Your task to perform on an android device: turn off location Image 0: 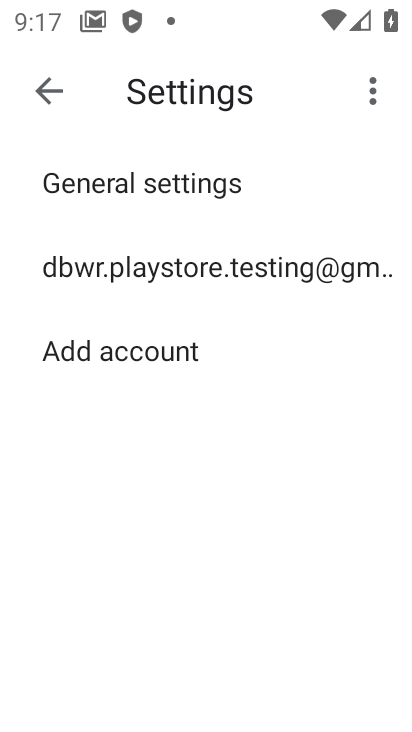
Step 0: press home button
Your task to perform on an android device: turn off location Image 1: 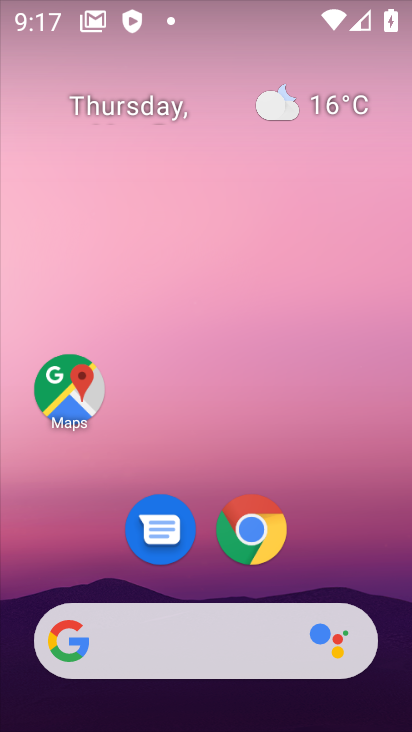
Step 1: drag from (401, 332) to (409, 110)
Your task to perform on an android device: turn off location Image 2: 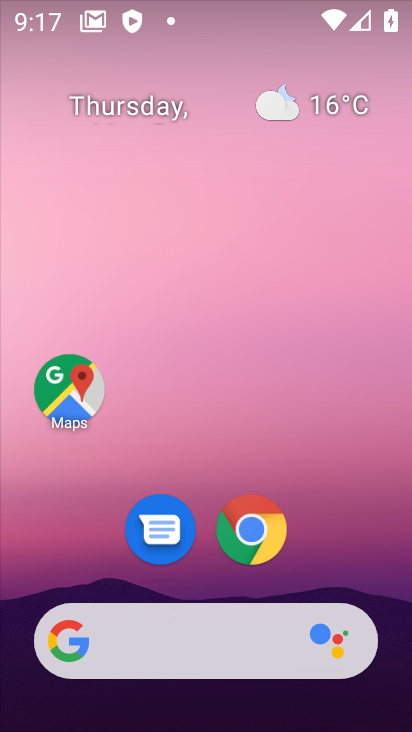
Step 2: drag from (386, 619) to (345, 177)
Your task to perform on an android device: turn off location Image 3: 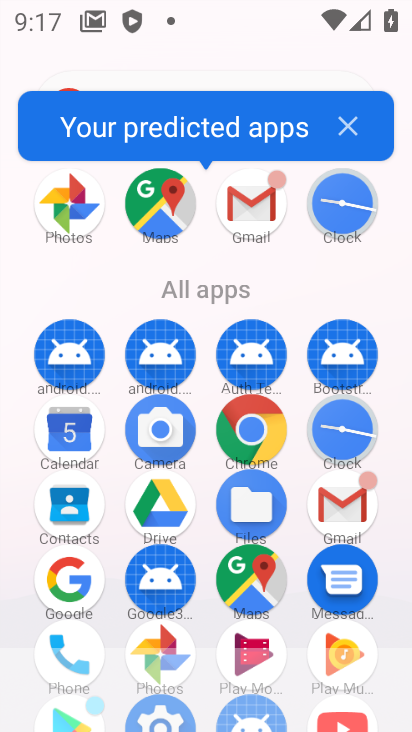
Step 3: drag from (401, 545) to (399, 309)
Your task to perform on an android device: turn off location Image 4: 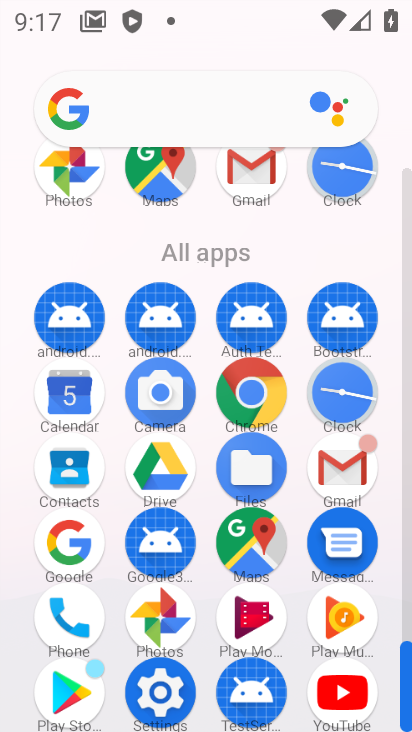
Step 4: click (155, 696)
Your task to perform on an android device: turn off location Image 5: 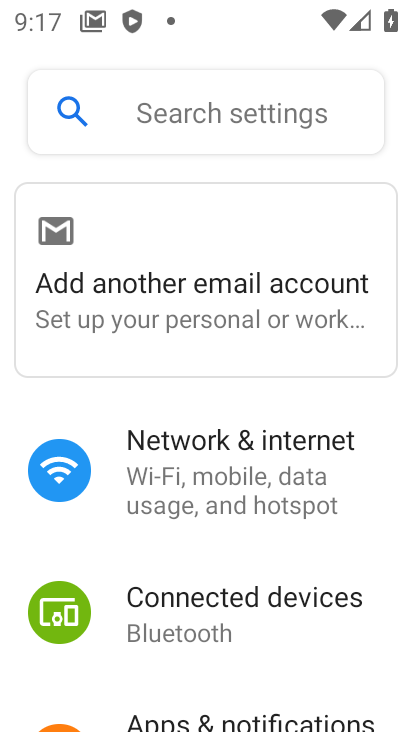
Step 5: drag from (351, 588) to (364, 299)
Your task to perform on an android device: turn off location Image 6: 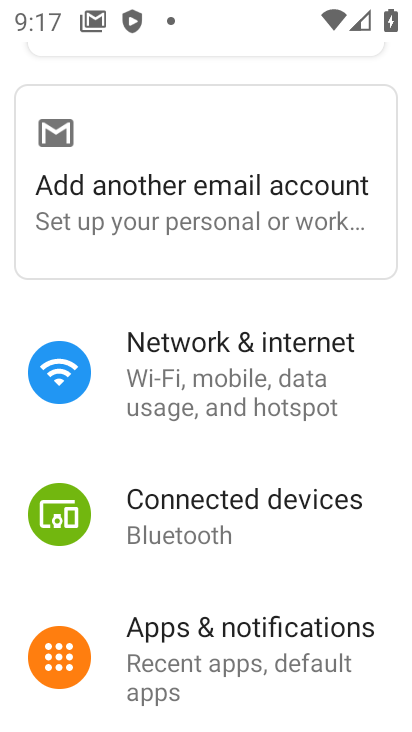
Step 6: drag from (354, 661) to (362, 266)
Your task to perform on an android device: turn off location Image 7: 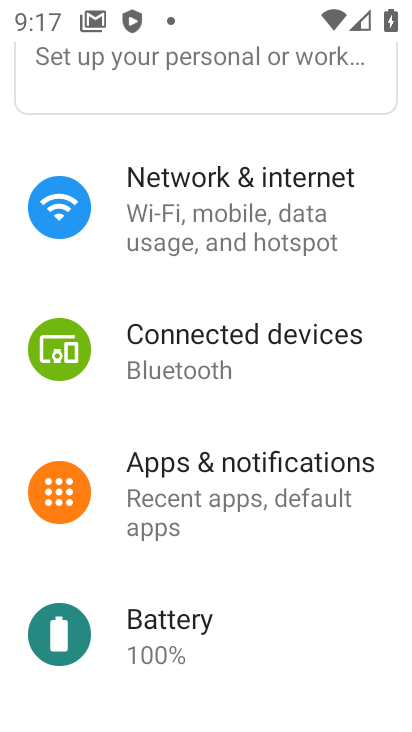
Step 7: drag from (306, 666) to (311, 274)
Your task to perform on an android device: turn off location Image 8: 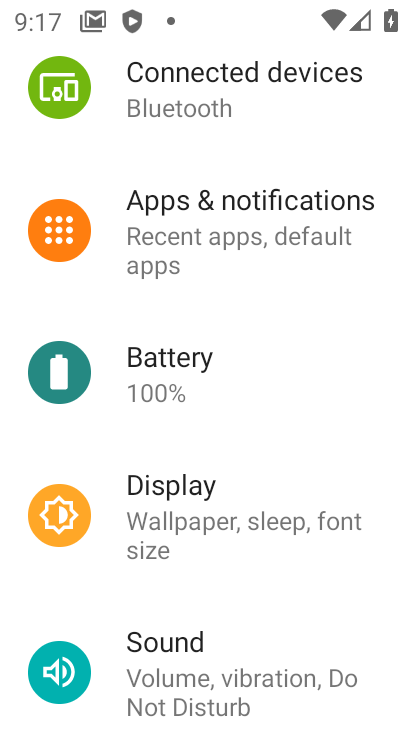
Step 8: drag from (305, 659) to (286, 230)
Your task to perform on an android device: turn off location Image 9: 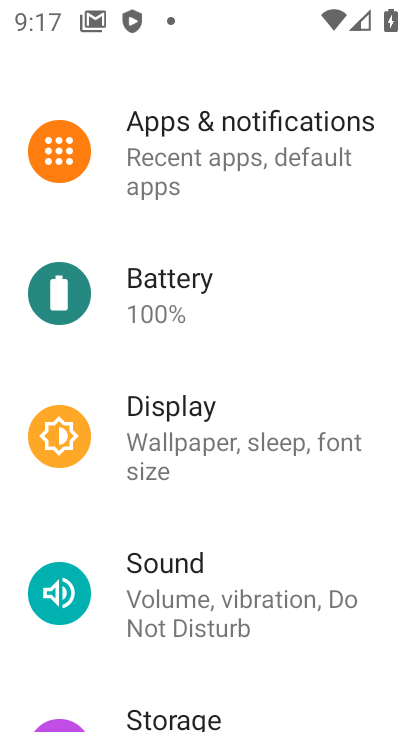
Step 9: drag from (305, 483) to (311, 352)
Your task to perform on an android device: turn off location Image 10: 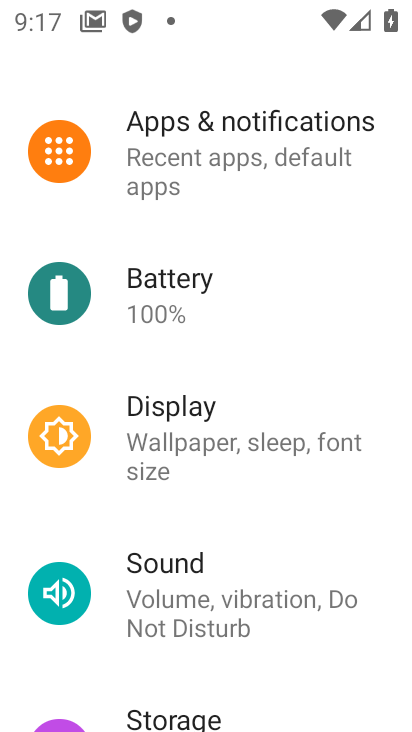
Step 10: drag from (325, 649) to (340, 172)
Your task to perform on an android device: turn off location Image 11: 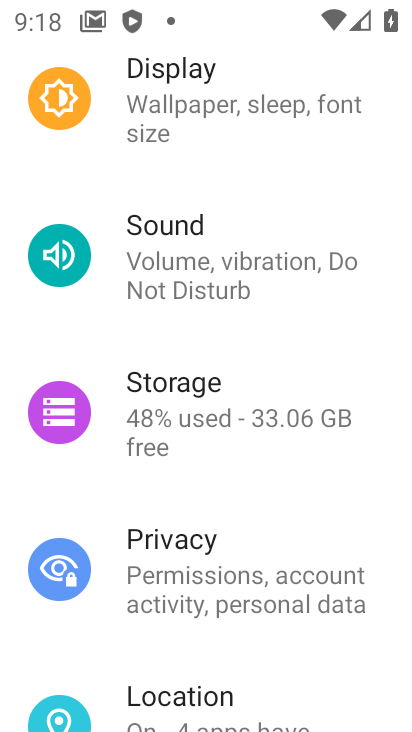
Step 11: click (187, 692)
Your task to perform on an android device: turn off location Image 12: 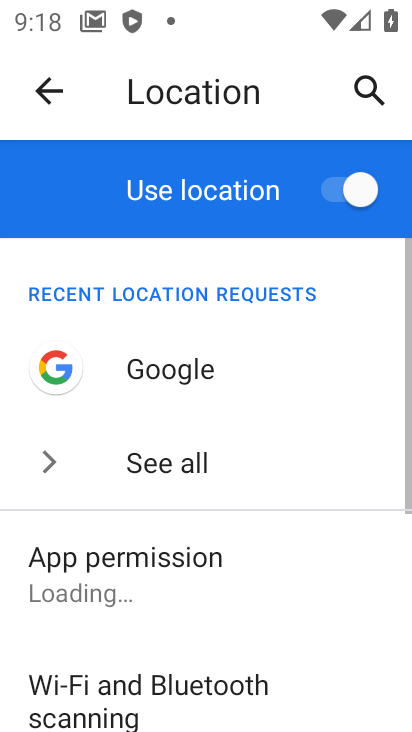
Step 12: click (335, 183)
Your task to perform on an android device: turn off location Image 13: 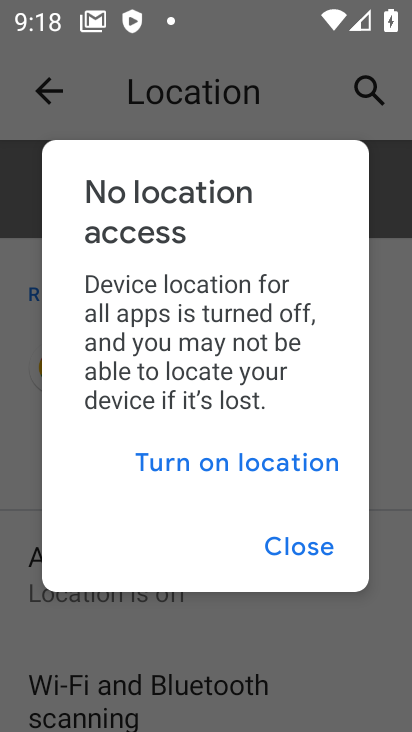
Step 13: click (293, 533)
Your task to perform on an android device: turn off location Image 14: 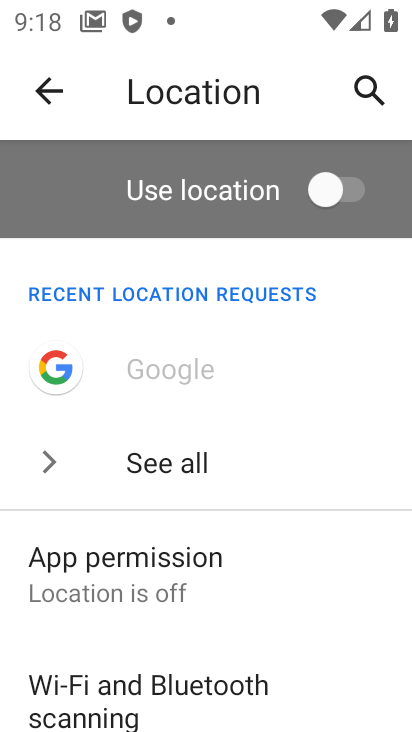
Step 14: task complete